Your task to perform on an android device: What's on my calendar tomorrow? Image 0: 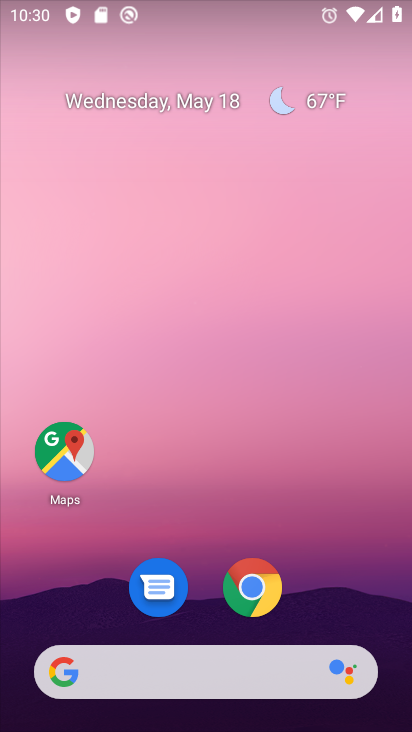
Step 0: drag from (376, 570) to (389, 241)
Your task to perform on an android device: What's on my calendar tomorrow? Image 1: 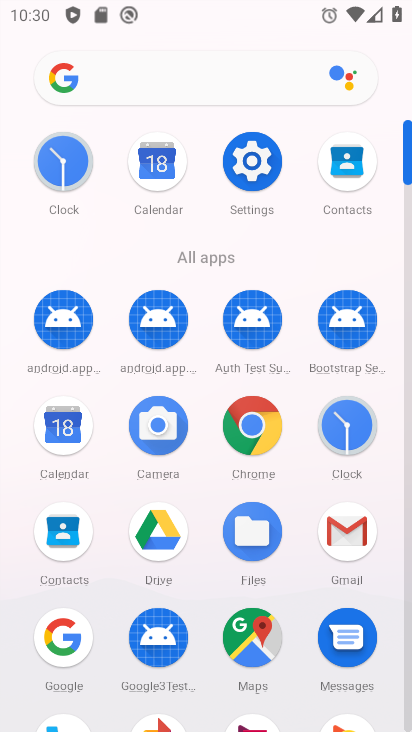
Step 1: click (147, 168)
Your task to perform on an android device: What's on my calendar tomorrow? Image 2: 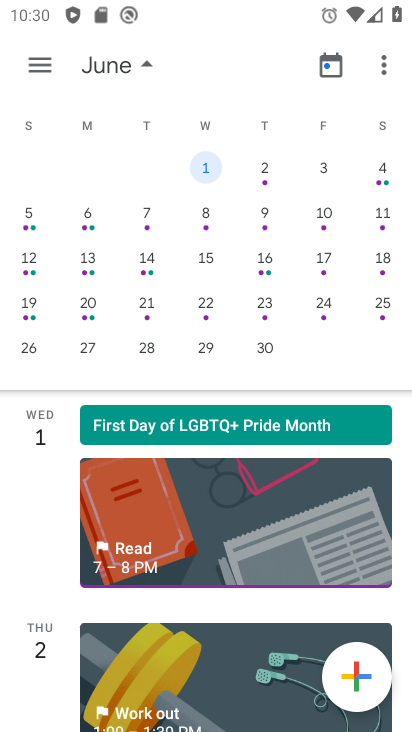
Step 2: click (41, 69)
Your task to perform on an android device: What's on my calendar tomorrow? Image 3: 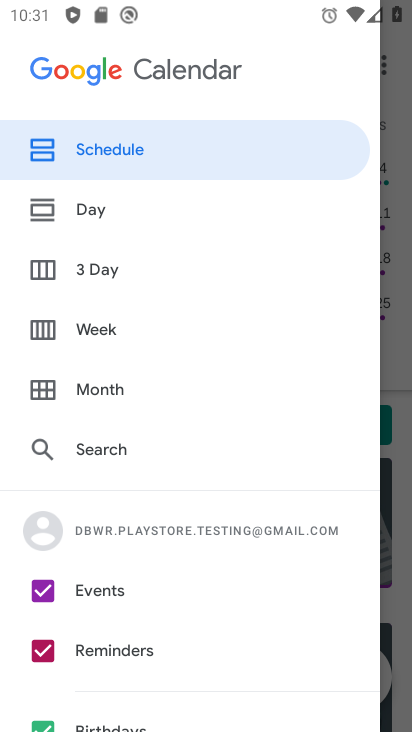
Step 3: click (291, 188)
Your task to perform on an android device: What's on my calendar tomorrow? Image 4: 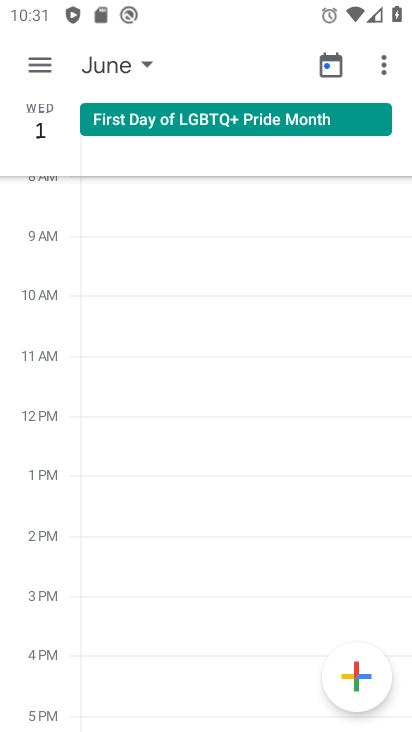
Step 4: click (117, 64)
Your task to perform on an android device: What's on my calendar tomorrow? Image 5: 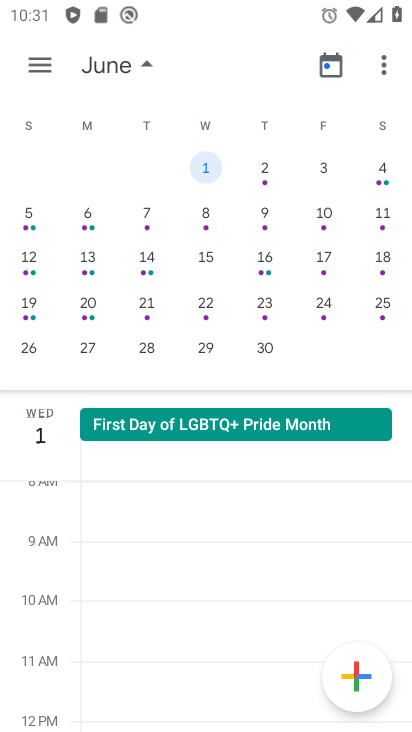
Step 5: drag from (140, 192) to (350, 184)
Your task to perform on an android device: What's on my calendar tomorrow? Image 6: 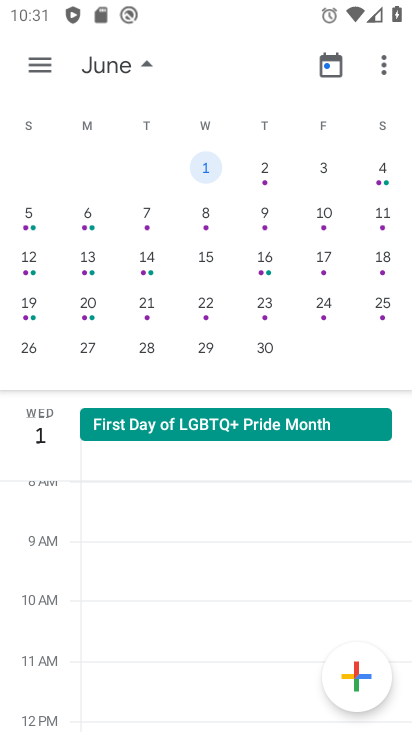
Step 6: drag from (102, 170) to (405, 169)
Your task to perform on an android device: What's on my calendar tomorrow? Image 7: 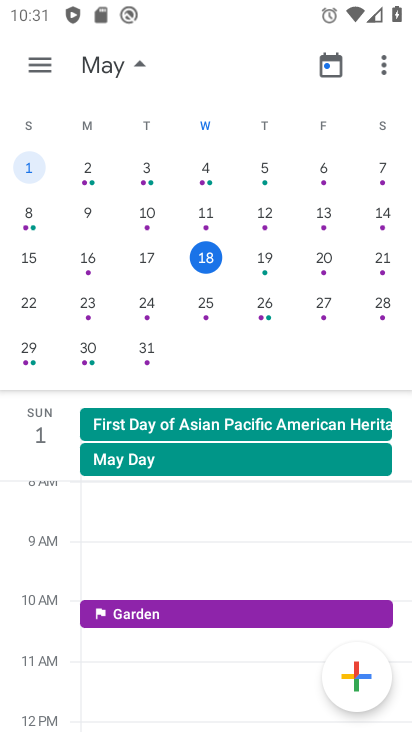
Step 7: click (262, 256)
Your task to perform on an android device: What's on my calendar tomorrow? Image 8: 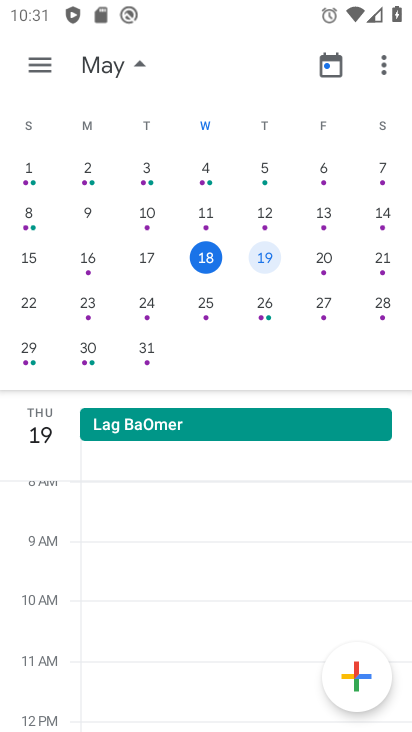
Step 8: task complete